Your task to perform on an android device: manage bookmarks in the chrome app Image 0: 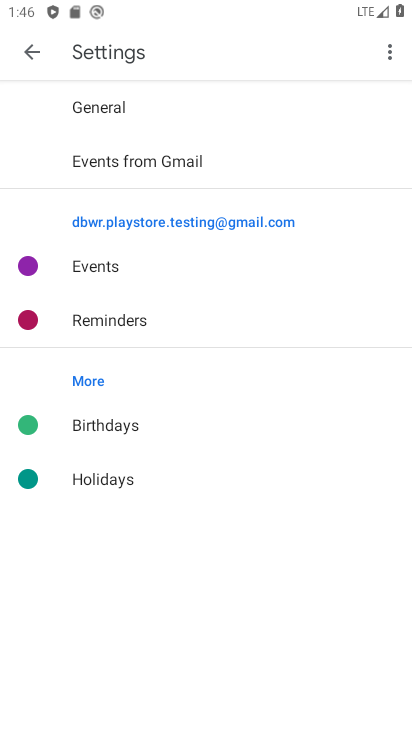
Step 0: press home button
Your task to perform on an android device: manage bookmarks in the chrome app Image 1: 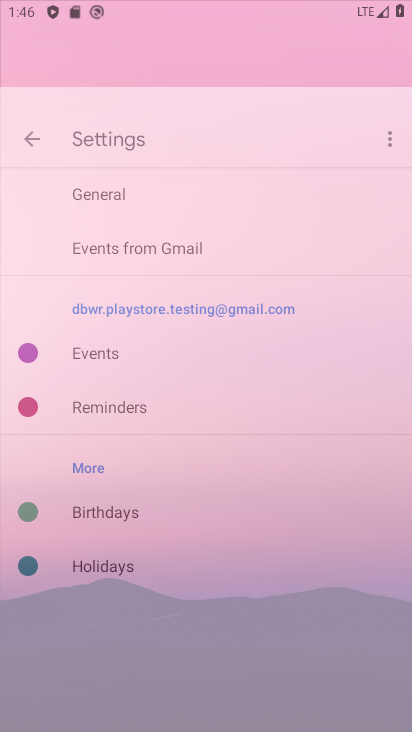
Step 1: drag from (230, 385) to (288, 125)
Your task to perform on an android device: manage bookmarks in the chrome app Image 2: 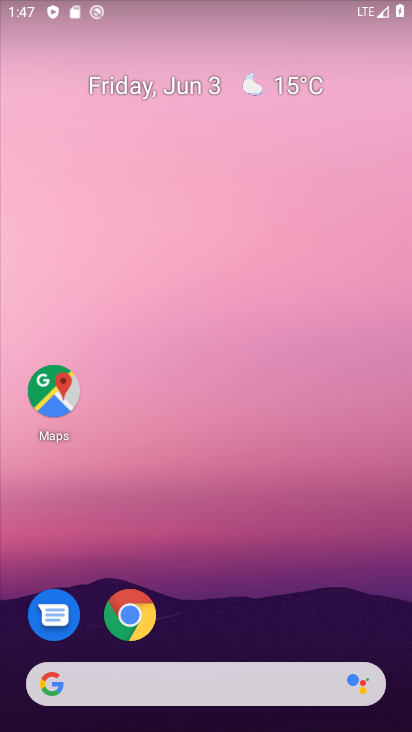
Step 2: drag from (224, 618) to (218, 165)
Your task to perform on an android device: manage bookmarks in the chrome app Image 3: 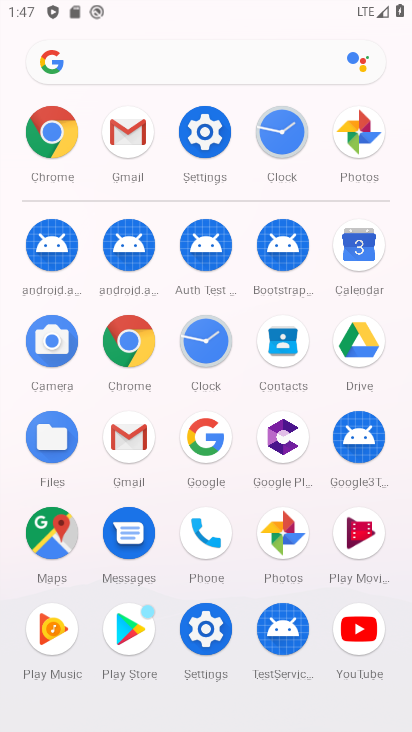
Step 3: click (123, 328)
Your task to perform on an android device: manage bookmarks in the chrome app Image 4: 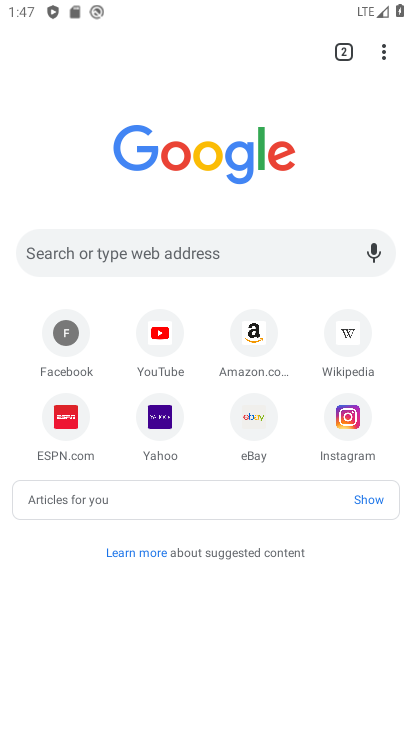
Step 4: drag from (384, 54) to (249, 208)
Your task to perform on an android device: manage bookmarks in the chrome app Image 5: 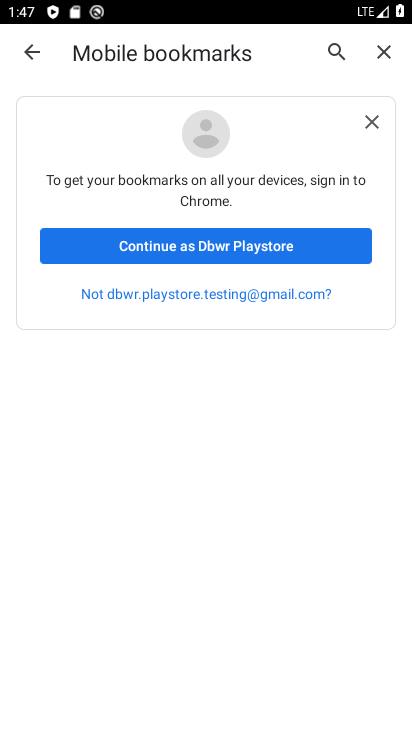
Step 5: drag from (240, 468) to (226, 124)
Your task to perform on an android device: manage bookmarks in the chrome app Image 6: 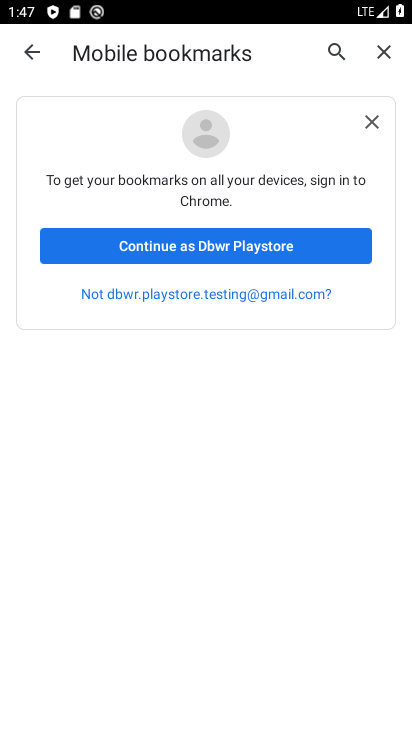
Step 6: drag from (280, 659) to (280, 461)
Your task to perform on an android device: manage bookmarks in the chrome app Image 7: 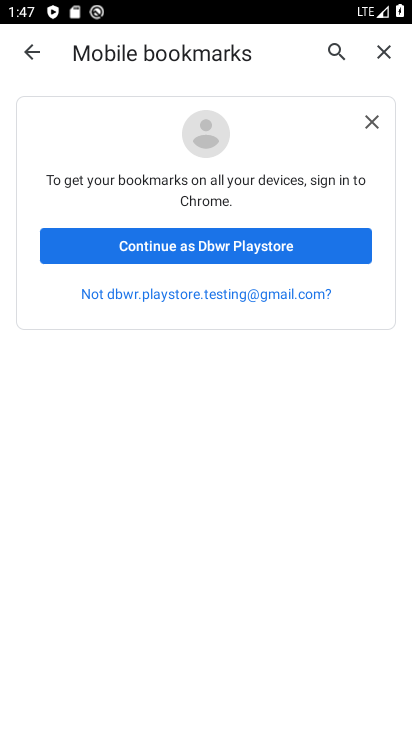
Step 7: click (375, 116)
Your task to perform on an android device: manage bookmarks in the chrome app Image 8: 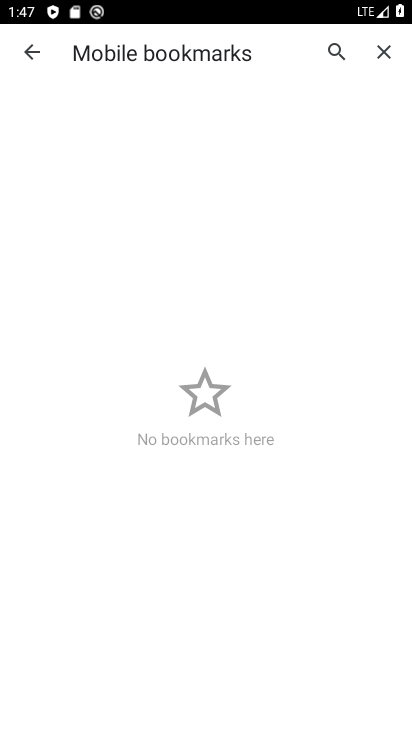
Step 8: drag from (236, 481) to (207, 137)
Your task to perform on an android device: manage bookmarks in the chrome app Image 9: 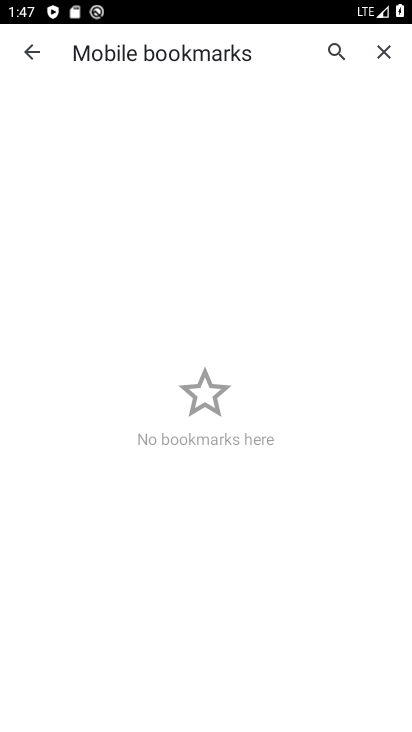
Step 9: drag from (280, 559) to (234, 215)
Your task to perform on an android device: manage bookmarks in the chrome app Image 10: 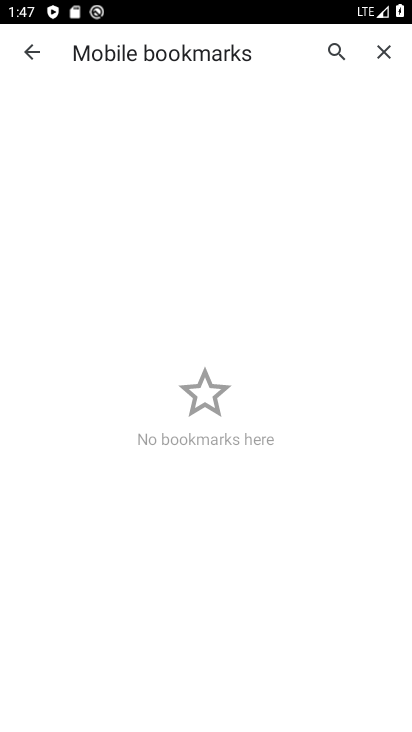
Step 10: drag from (200, 231) to (228, 529)
Your task to perform on an android device: manage bookmarks in the chrome app Image 11: 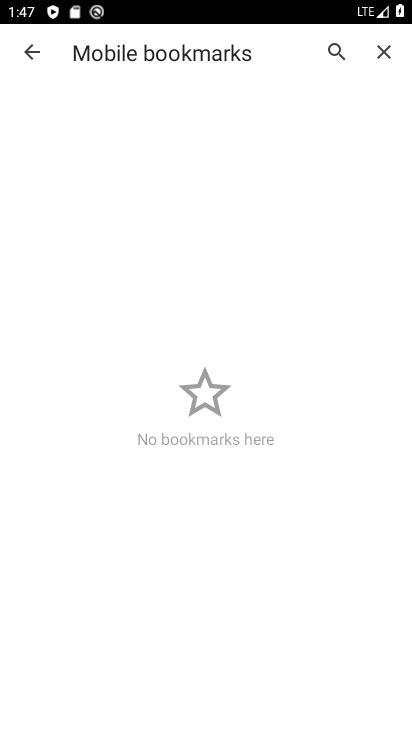
Step 11: click (244, 288)
Your task to perform on an android device: manage bookmarks in the chrome app Image 12: 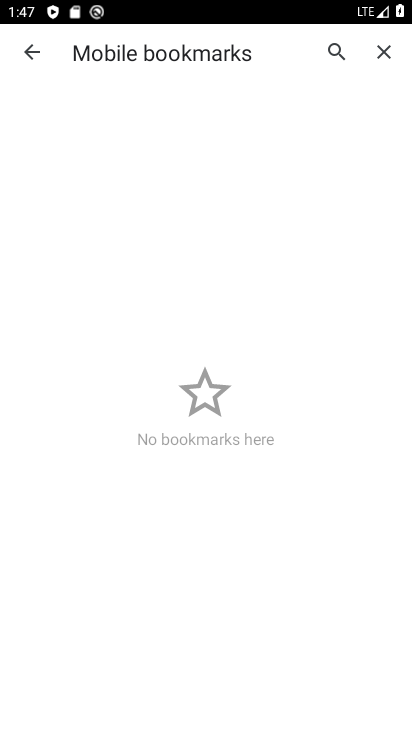
Step 12: click (221, 271)
Your task to perform on an android device: manage bookmarks in the chrome app Image 13: 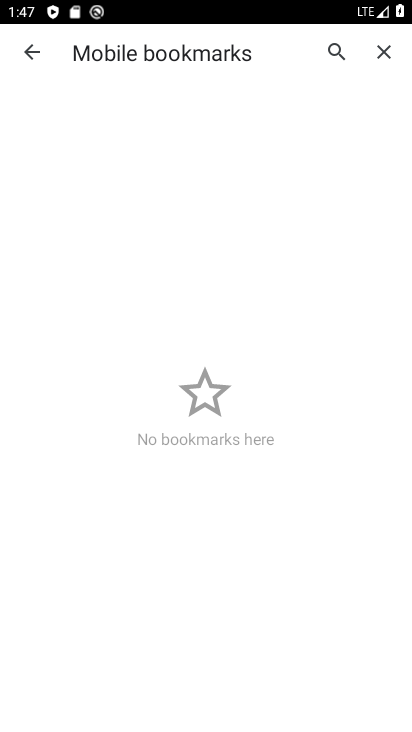
Step 13: click (253, 452)
Your task to perform on an android device: manage bookmarks in the chrome app Image 14: 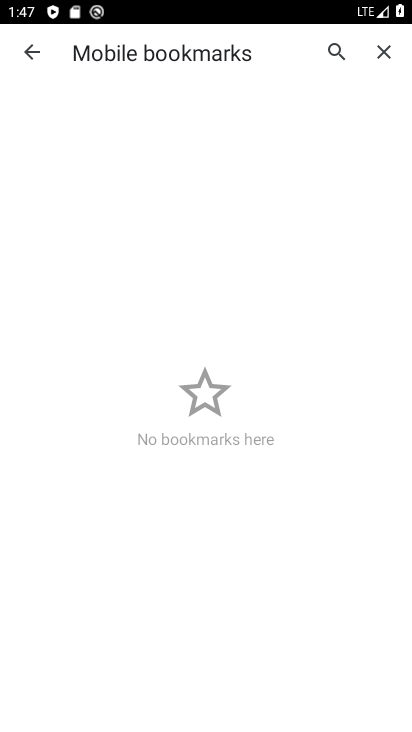
Step 14: click (231, 464)
Your task to perform on an android device: manage bookmarks in the chrome app Image 15: 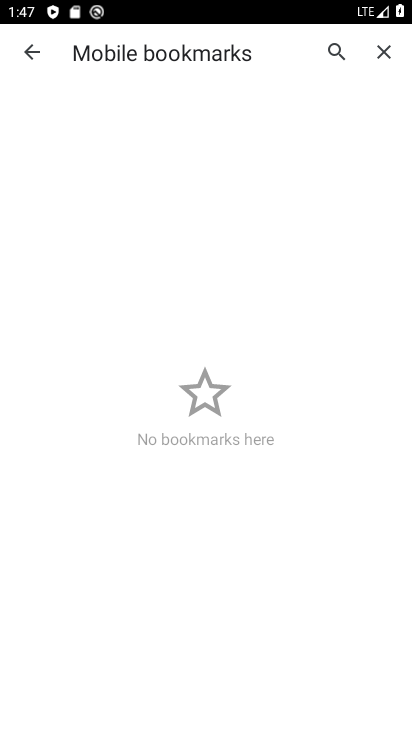
Step 15: click (187, 337)
Your task to perform on an android device: manage bookmarks in the chrome app Image 16: 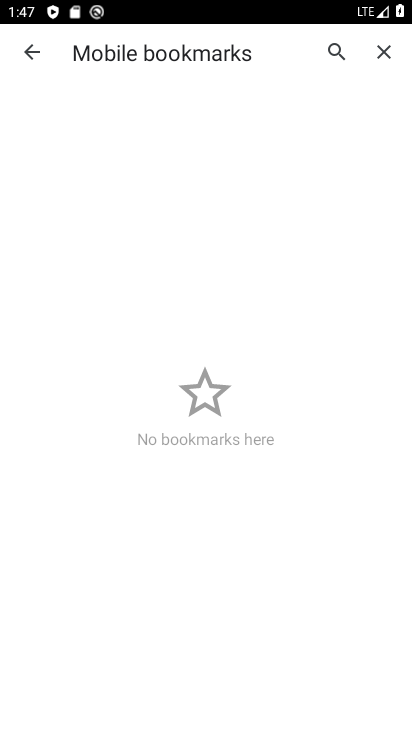
Step 16: click (236, 502)
Your task to perform on an android device: manage bookmarks in the chrome app Image 17: 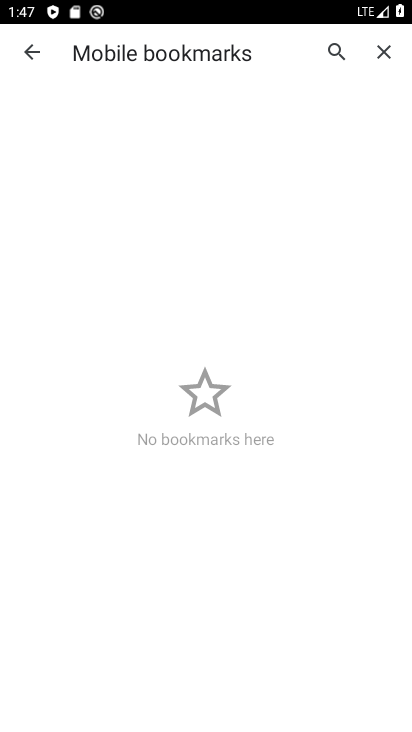
Step 17: click (234, 292)
Your task to perform on an android device: manage bookmarks in the chrome app Image 18: 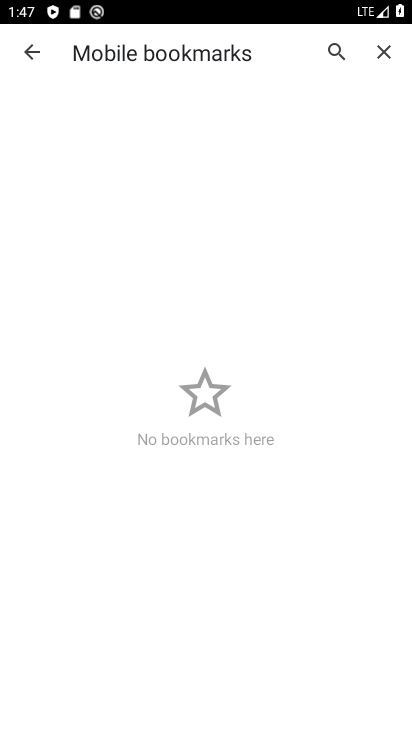
Step 18: click (220, 458)
Your task to perform on an android device: manage bookmarks in the chrome app Image 19: 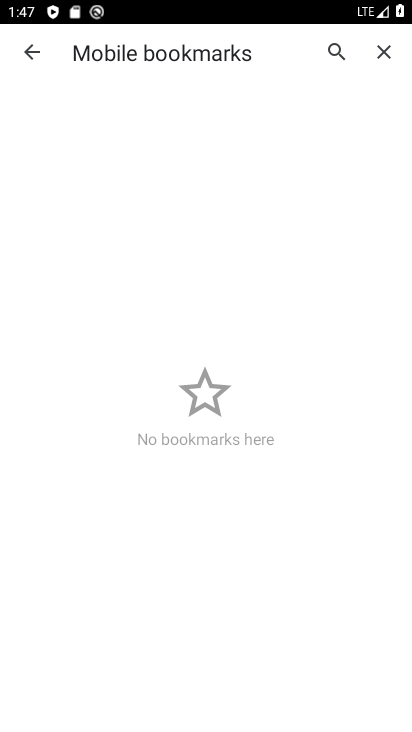
Step 19: task complete